Your task to perform on an android device: empty trash in the gmail app Image 0: 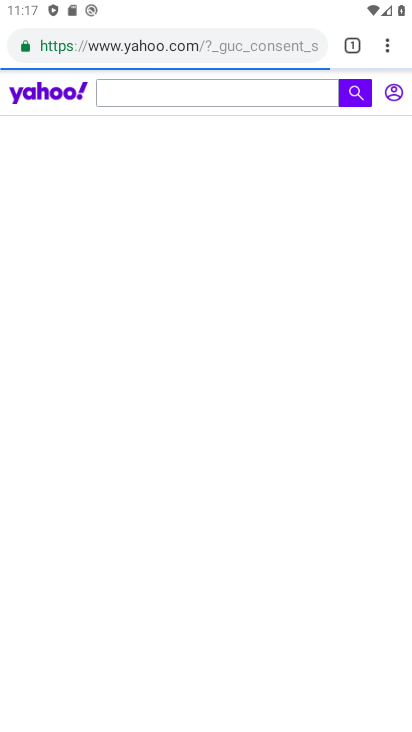
Step 0: press back button
Your task to perform on an android device: empty trash in the gmail app Image 1: 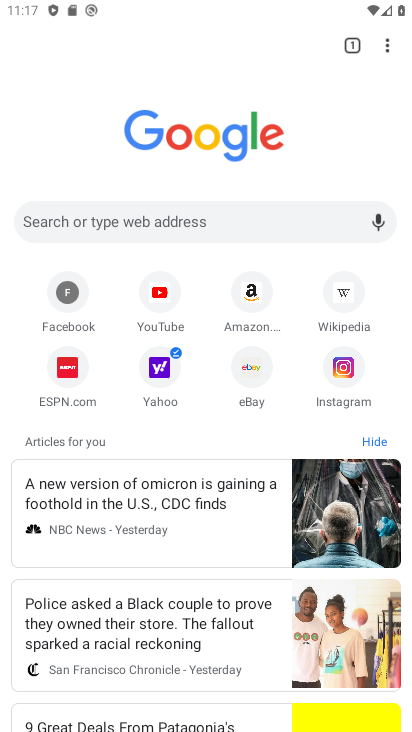
Step 1: press back button
Your task to perform on an android device: empty trash in the gmail app Image 2: 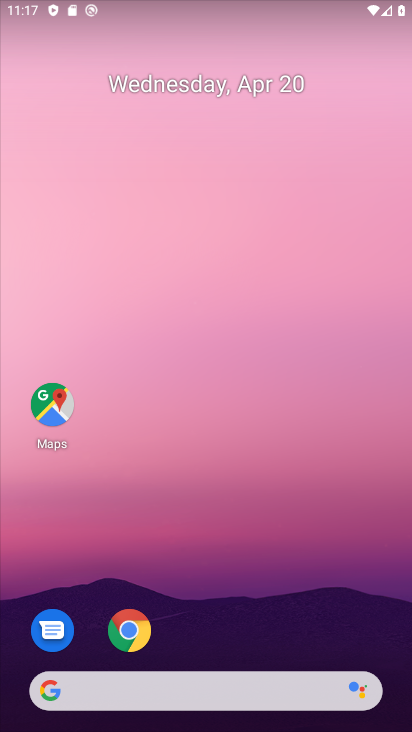
Step 2: drag from (299, 424) to (361, 97)
Your task to perform on an android device: empty trash in the gmail app Image 3: 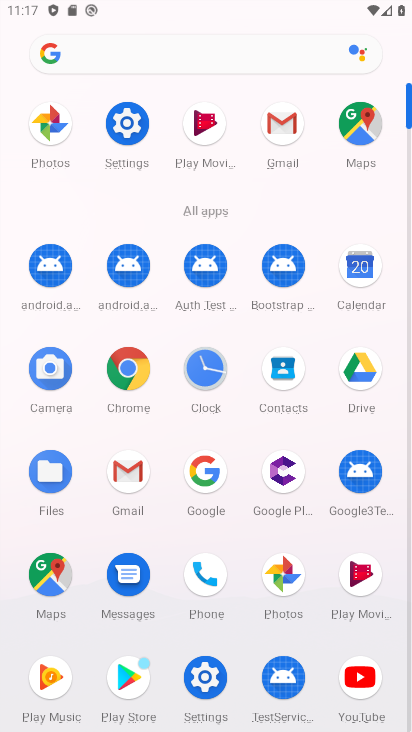
Step 3: click (125, 480)
Your task to perform on an android device: empty trash in the gmail app Image 4: 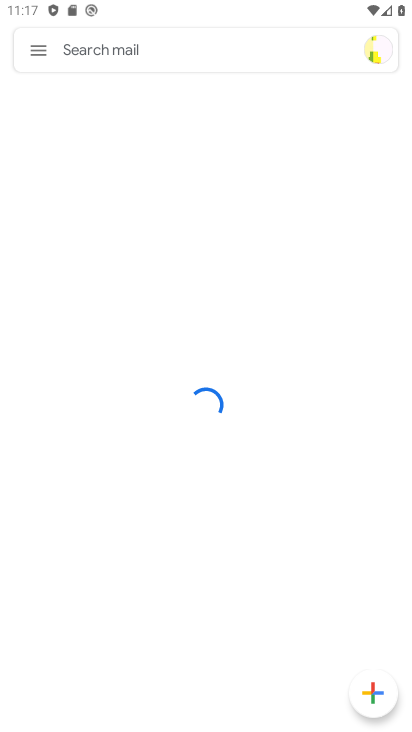
Step 4: click (39, 49)
Your task to perform on an android device: empty trash in the gmail app Image 5: 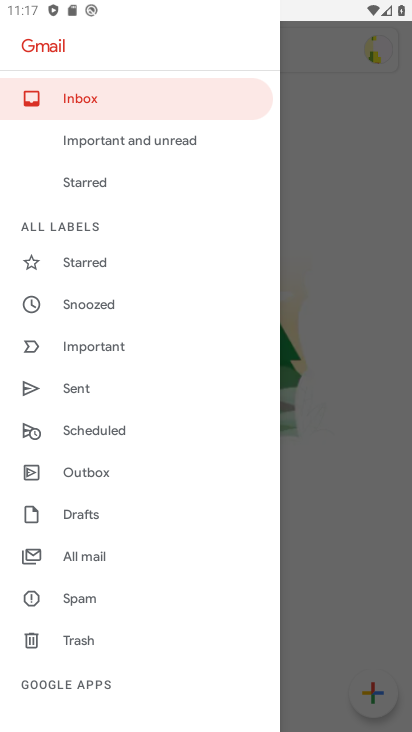
Step 5: click (109, 638)
Your task to perform on an android device: empty trash in the gmail app Image 6: 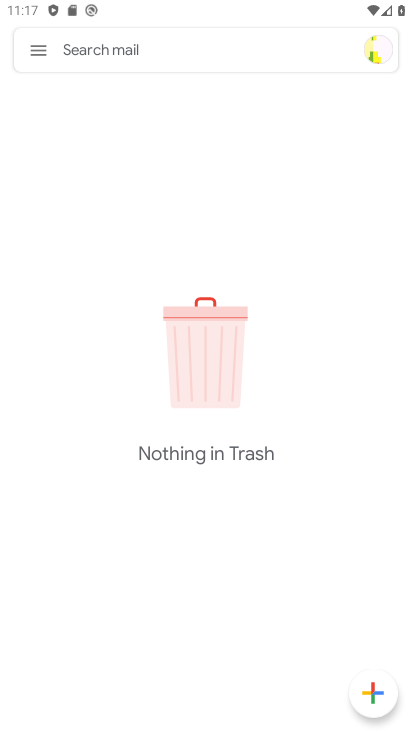
Step 6: task complete